Your task to perform on an android device: delete browsing data in the chrome app Image 0: 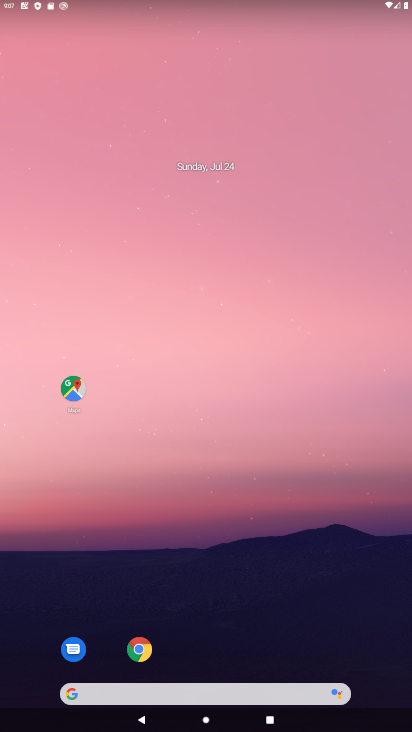
Step 0: press home button
Your task to perform on an android device: delete browsing data in the chrome app Image 1: 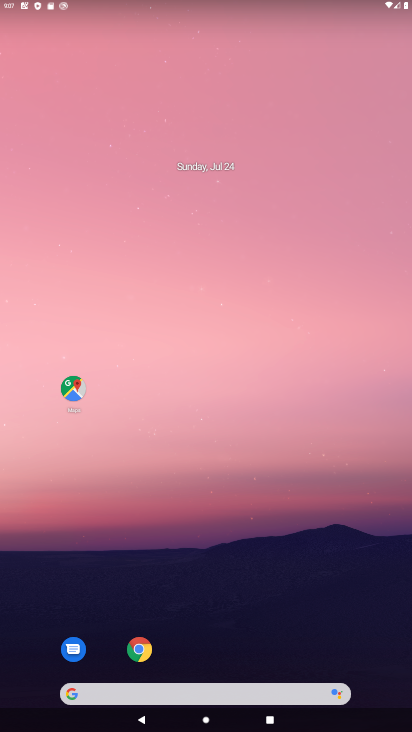
Step 1: drag from (321, 650) to (343, 56)
Your task to perform on an android device: delete browsing data in the chrome app Image 2: 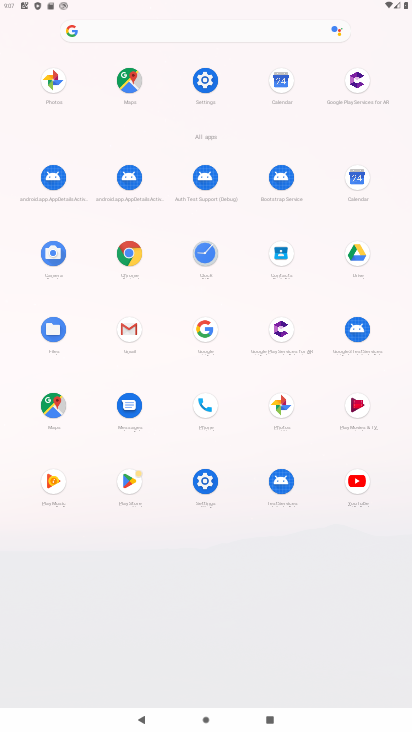
Step 2: click (133, 254)
Your task to perform on an android device: delete browsing data in the chrome app Image 3: 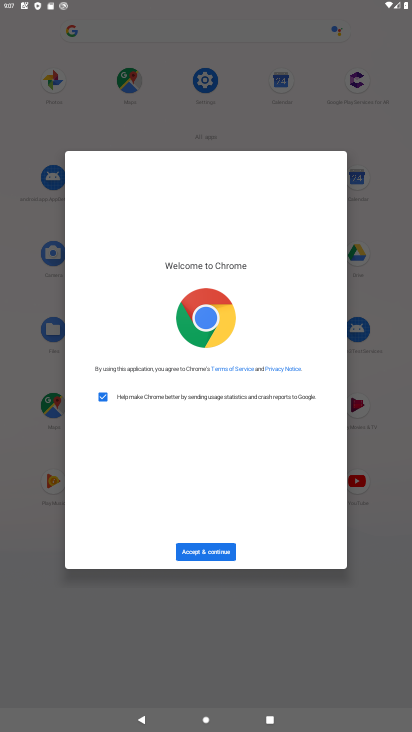
Step 3: click (211, 555)
Your task to perform on an android device: delete browsing data in the chrome app Image 4: 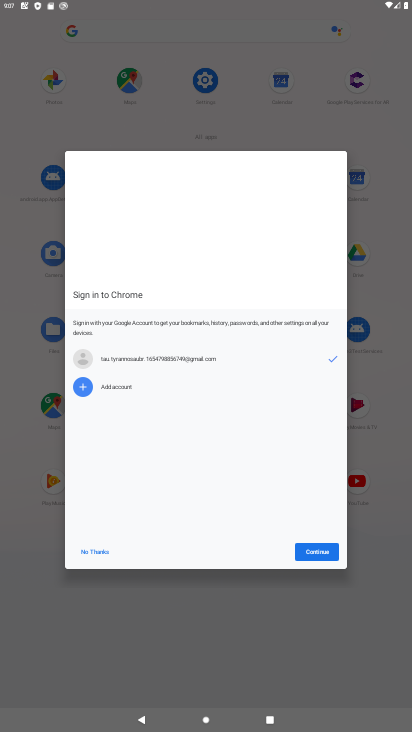
Step 4: click (319, 550)
Your task to perform on an android device: delete browsing data in the chrome app Image 5: 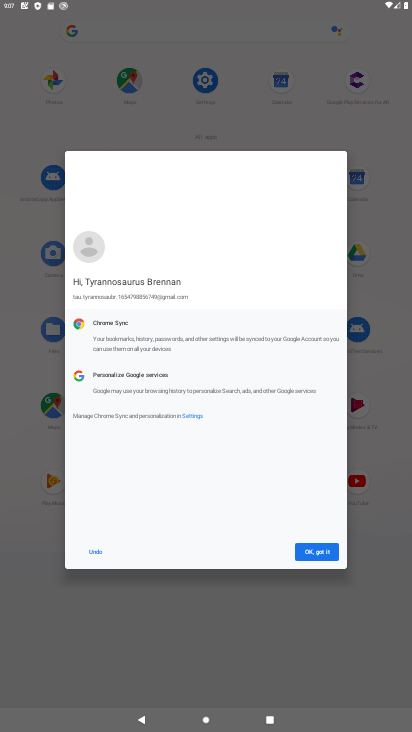
Step 5: click (317, 552)
Your task to perform on an android device: delete browsing data in the chrome app Image 6: 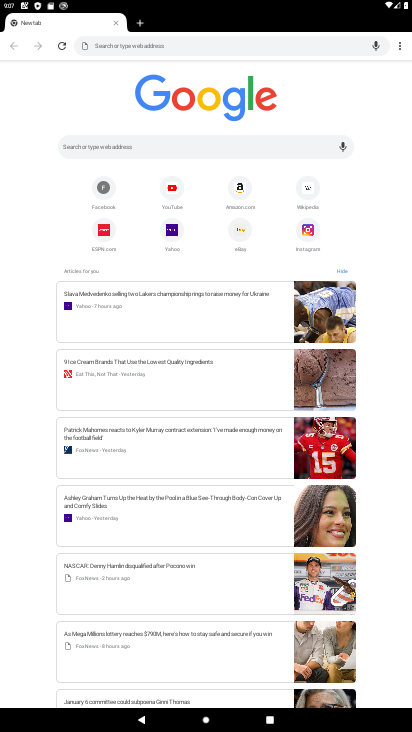
Step 6: click (397, 42)
Your task to perform on an android device: delete browsing data in the chrome app Image 7: 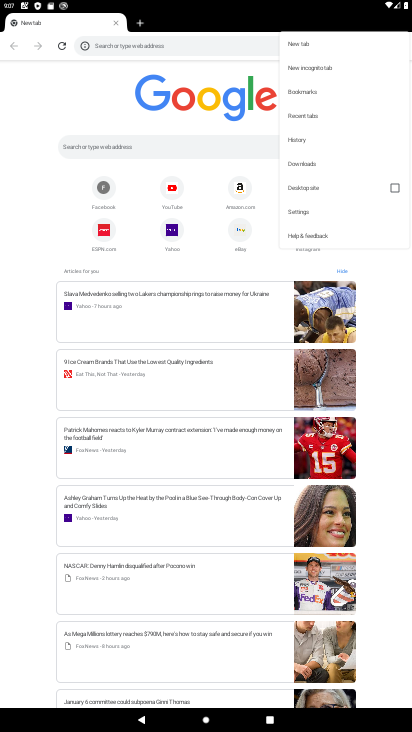
Step 7: click (306, 213)
Your task to perform on an android device: delete browsing data in the chrome app Image 8: 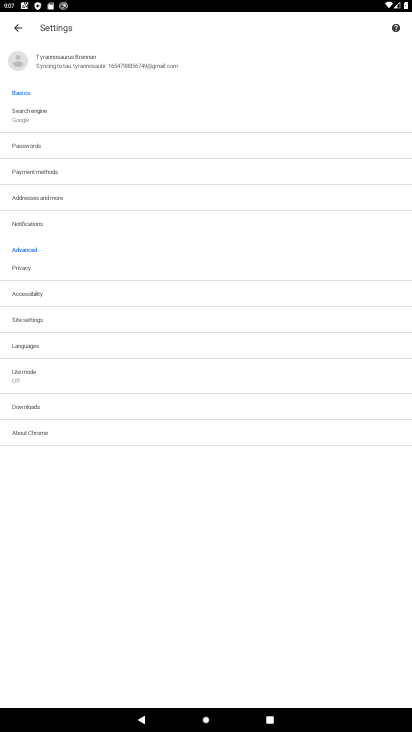
Step 8: click (191, 270)
Your task to perform on an android device: delete browsing data in the chrome app Image 9: 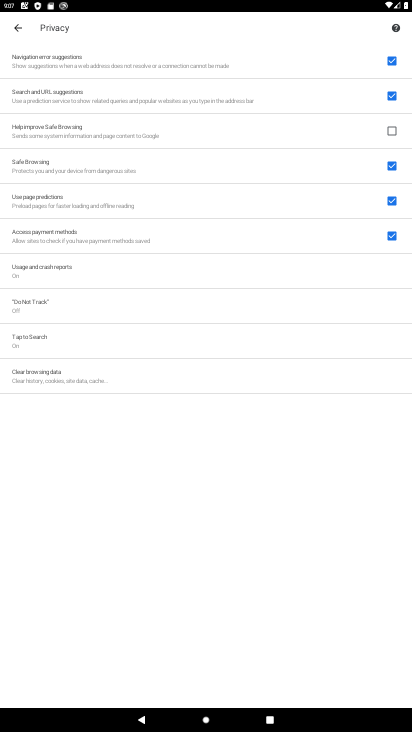
Step 9: click (117, 372)
Your task to perform on an android device: delete browsing data in the chrome app Image 10: 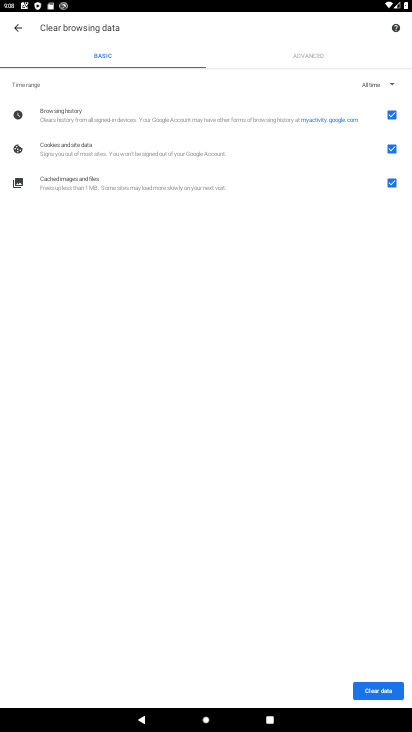
Step 10: click (377, 689)
Your task to perform on an android device: delete browsing data in the chrome app Image 11: 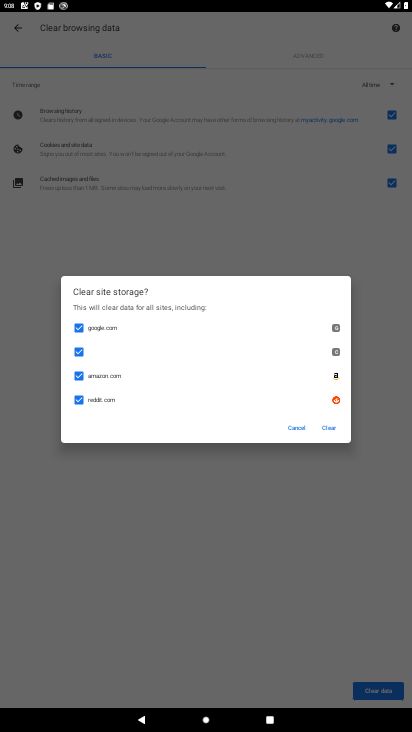
Step 11: click (324, 423)
Your task to perform on an android device: delete browsing data in the chrome app Image 12: 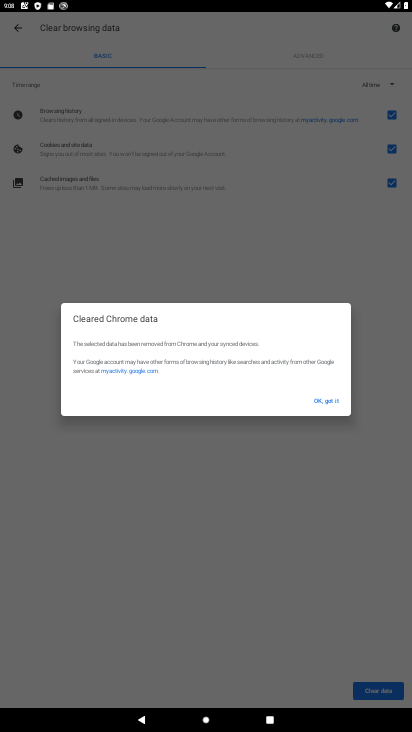
Step 12: click (319, 404)
Your task to perform on an android device: delete browsing data in the chrome app Image 13: 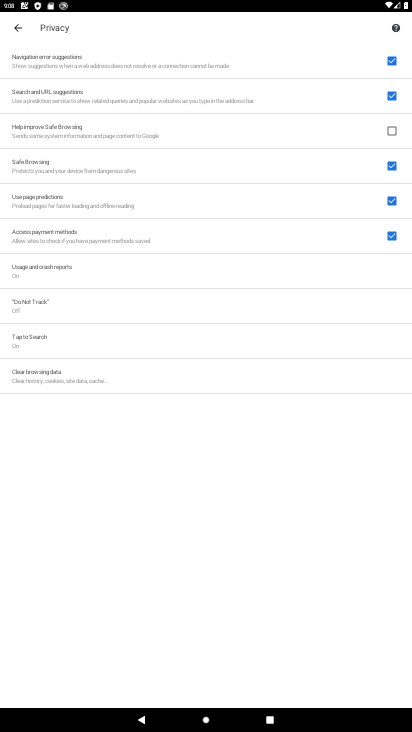
Step 13: task complete